Your task to perform on an android device: toggle translation in the chrome app Image 0: 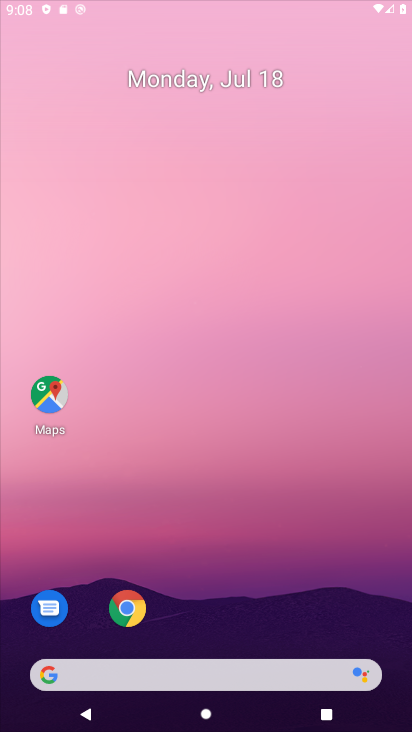
Step 0: press back button
Your task to perform on an android device: toggle translation in the chrome app Image 1: 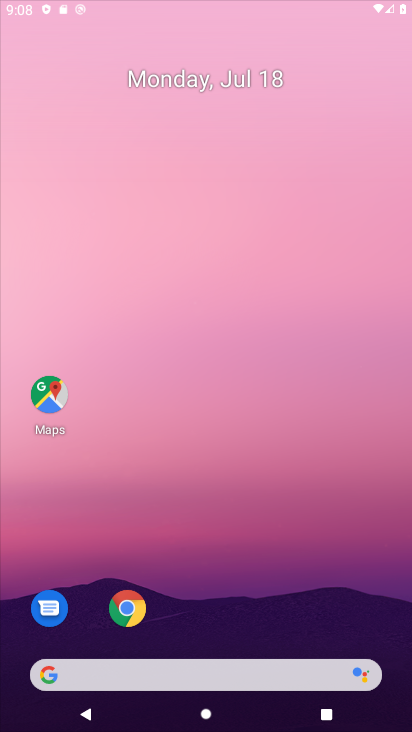
Step 1: click (157, 255)
Your task to perform on an android device: toggle translation in the chrome app Image 2: 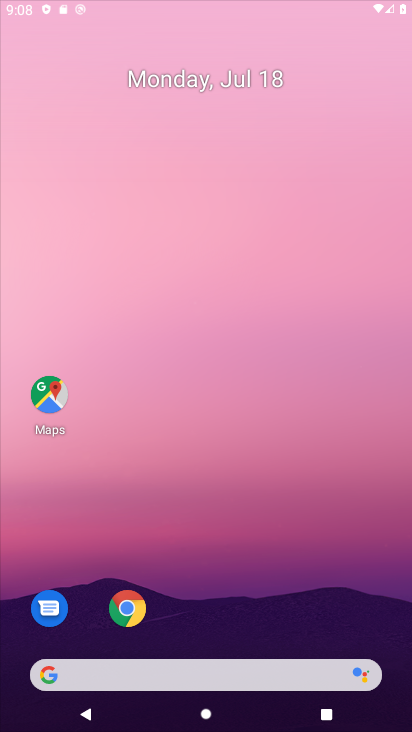
Step 2: drag from (293, 673) to (202, 183)
Your task to perform on an android device: toggle translation in the chrome app Image 3: 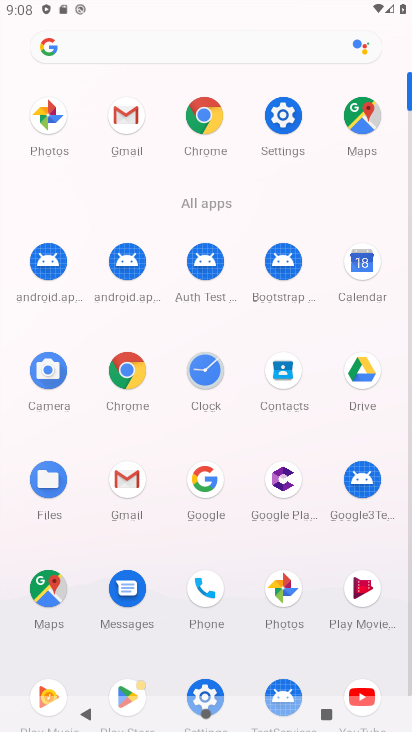
Step 3: drag from (288, 665) to (206, 185)
Your task to perform on an android device: toggle translation in the chrome app Image 4: 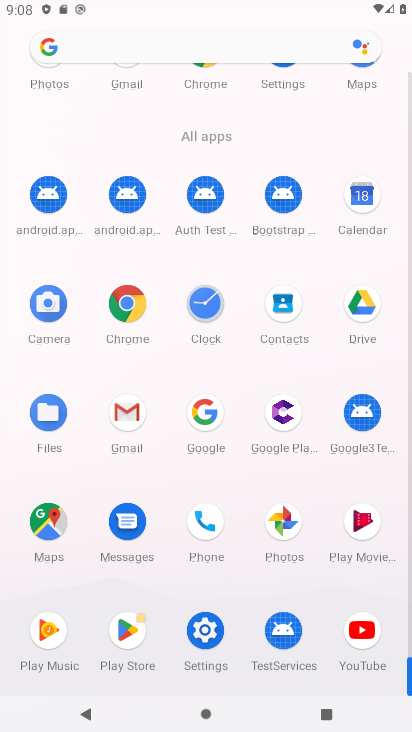
Step 4: click (114, 301)
Your task to perform on an android device: toggle translation in the chrome app Image 5: 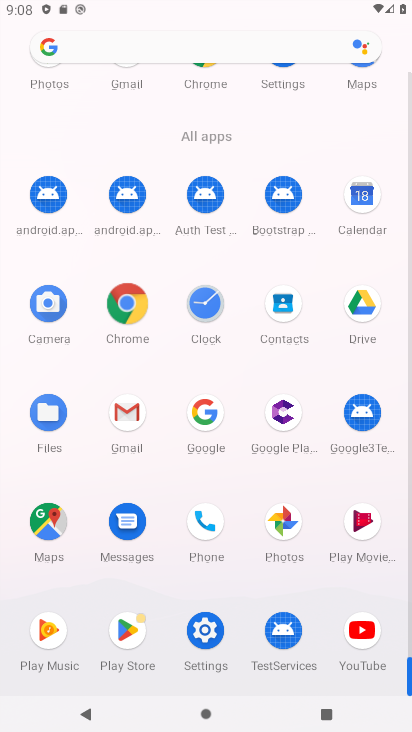
Step 5: click (120, 300)
Your task to perform on an android device: toggle translation in the chrome app Image 6: 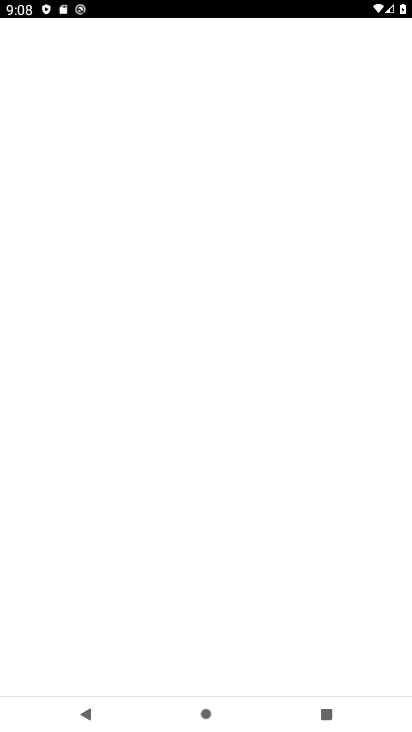
Step 6: click (123, 296)
Your task to perform on an android device: toggle translation in the chrome app Image 7: 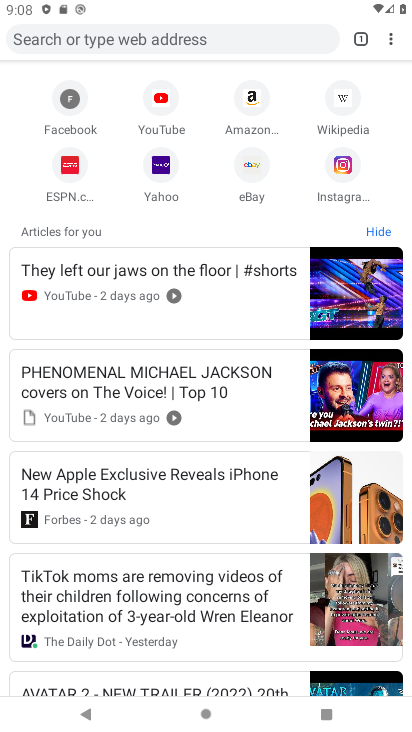
Step 7: drag from (392, 39) to (255, 330)
Your task to perform on an android device: toggle translation in the chrome app Image 8: 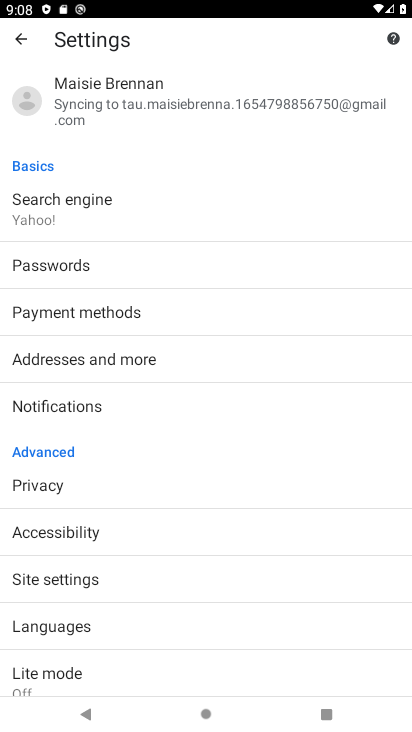
Step 8: click (55, 631)
Your task to perform on an android device: toggle translation in the chrome app Image 9: 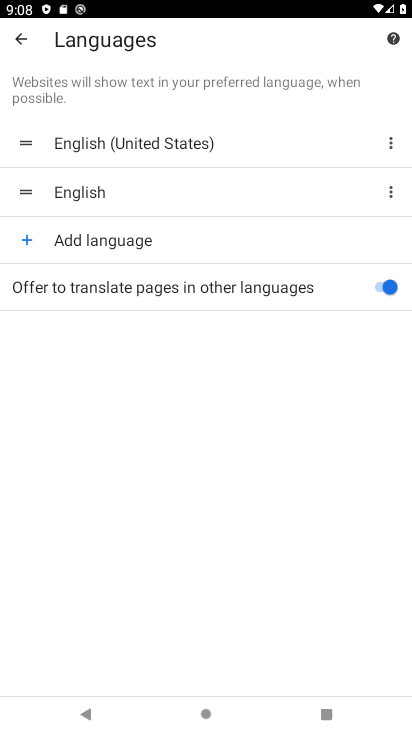
Step 9: click (390, 283)
Your task to perform on an android device: toggle translation in the chrome app Image 10: 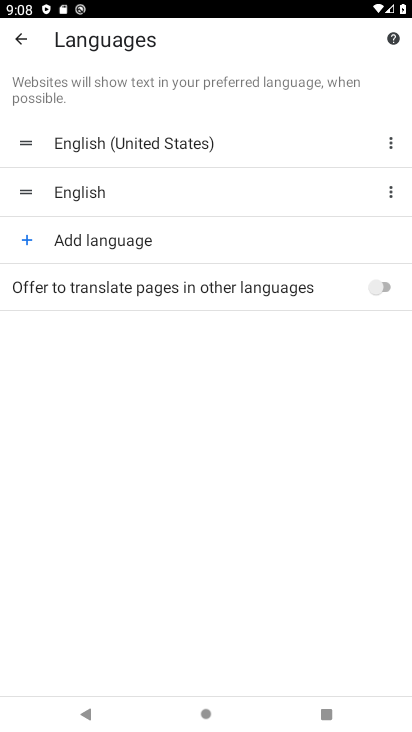
Step 10: task complete